Your task to perform on an android device: Check the weather Image 0: 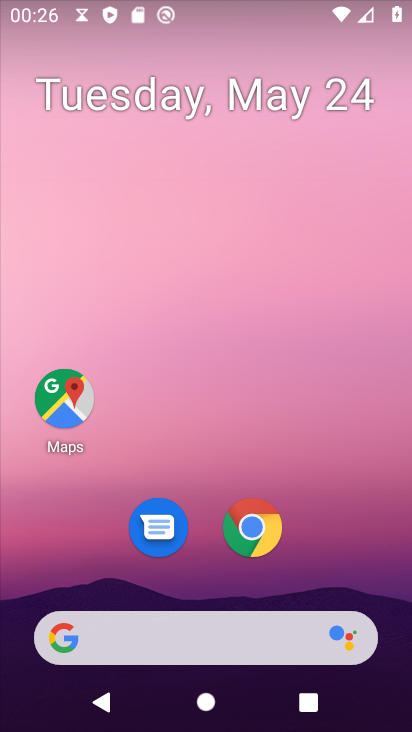
Step 0: press home button
Your task to perform on an android device: Check the weather Image 1: 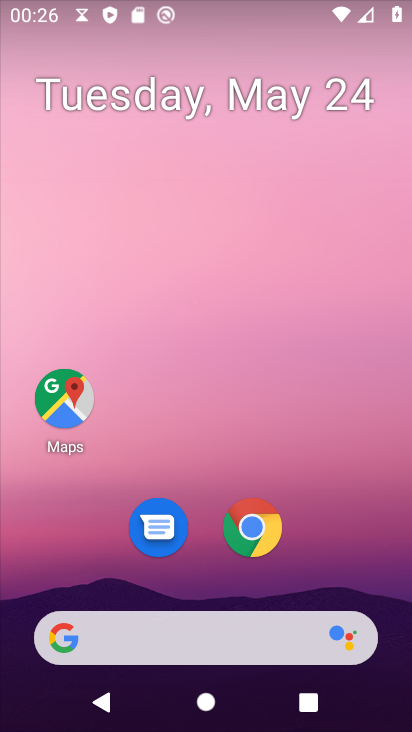
Step 1: click (65, 646)
Your task to perform on an android device: Check the weather Image 2: 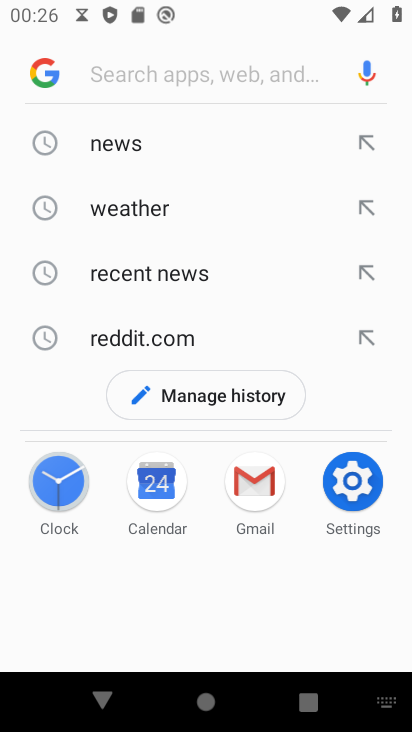
Step 2: click (147, 205)
Your task to perform on an android device: Check the weather Image 3: 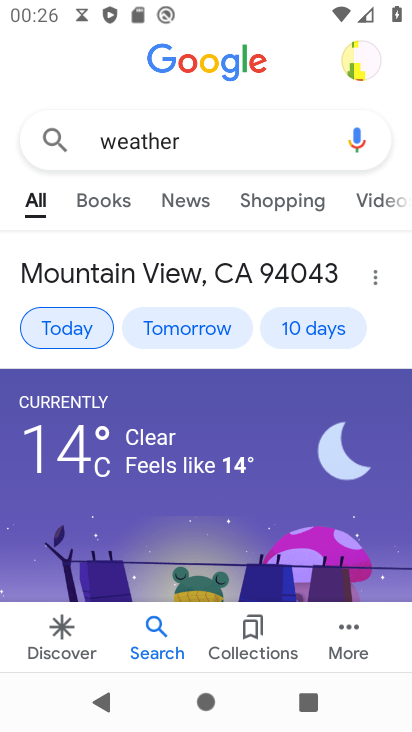
Step 3: task complete